Your task to perform on an android device: Clear the cart on ebay.com. Add "jbl flip 4" to the cart on ebay.com Image 0: 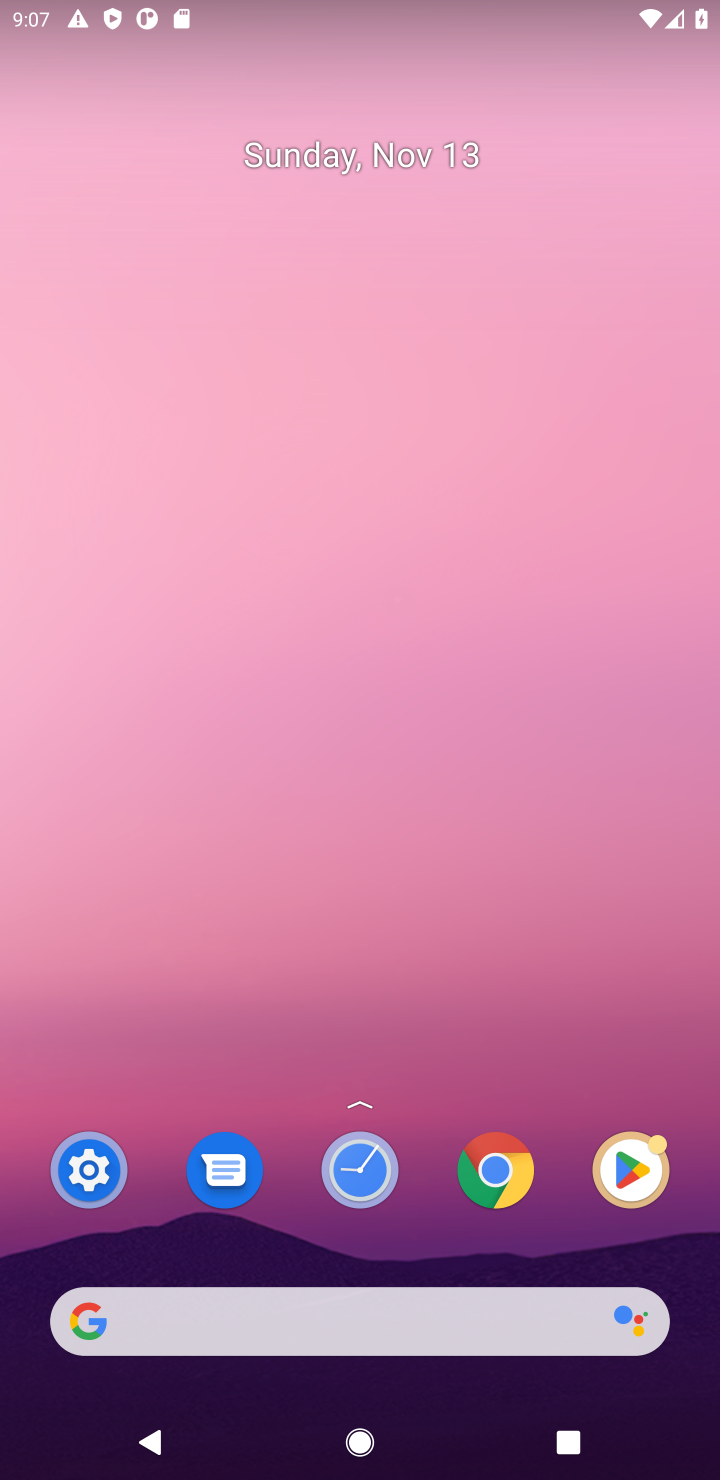
Step 0: click (415, 1330)
Your task to perform on an android device: Clear the cart on ebay.com. Add "jbl flip 4" to the cart on ebay.com Image 1: 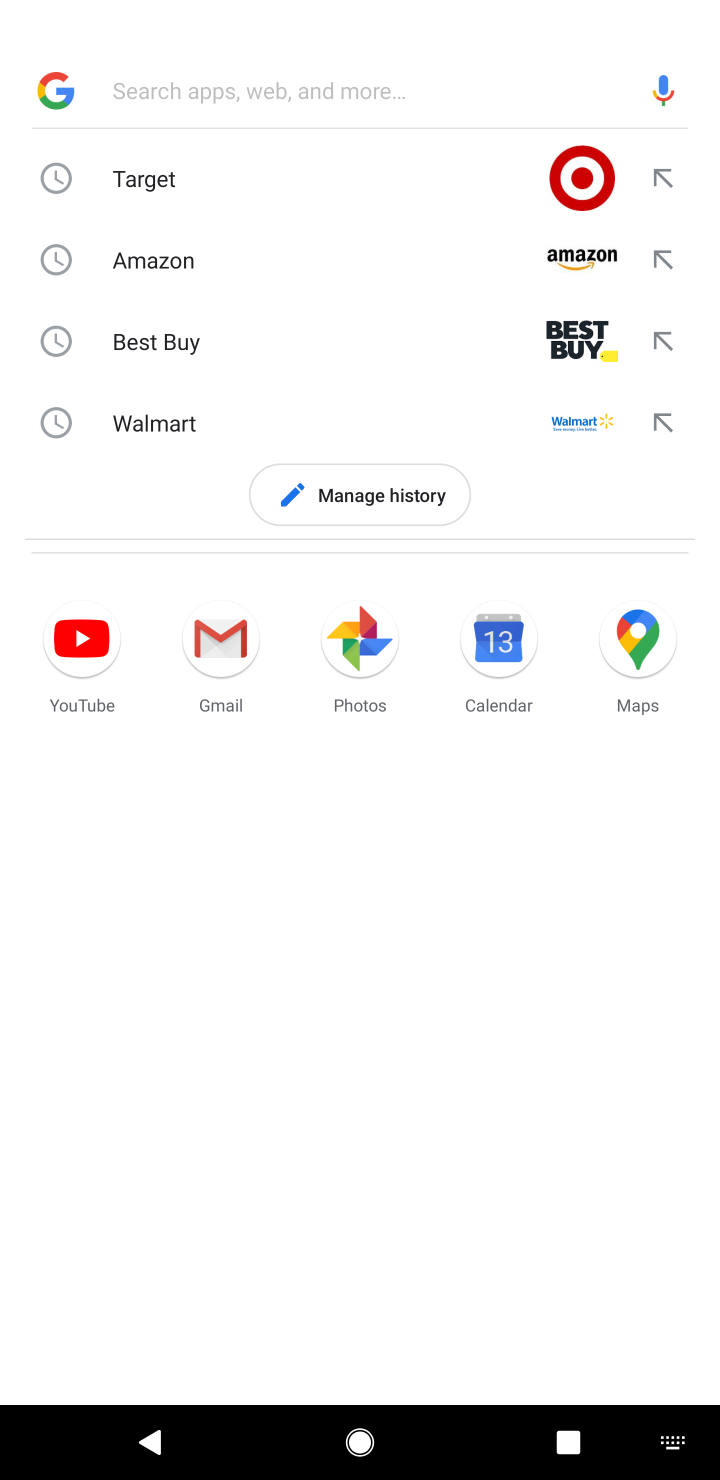
Step 1: type "jbl flip 4"
Your task to perform on an android device: Clear the cart on ebay.com. Add "jbl flip 4" to the cart on ebay.com Image 2: 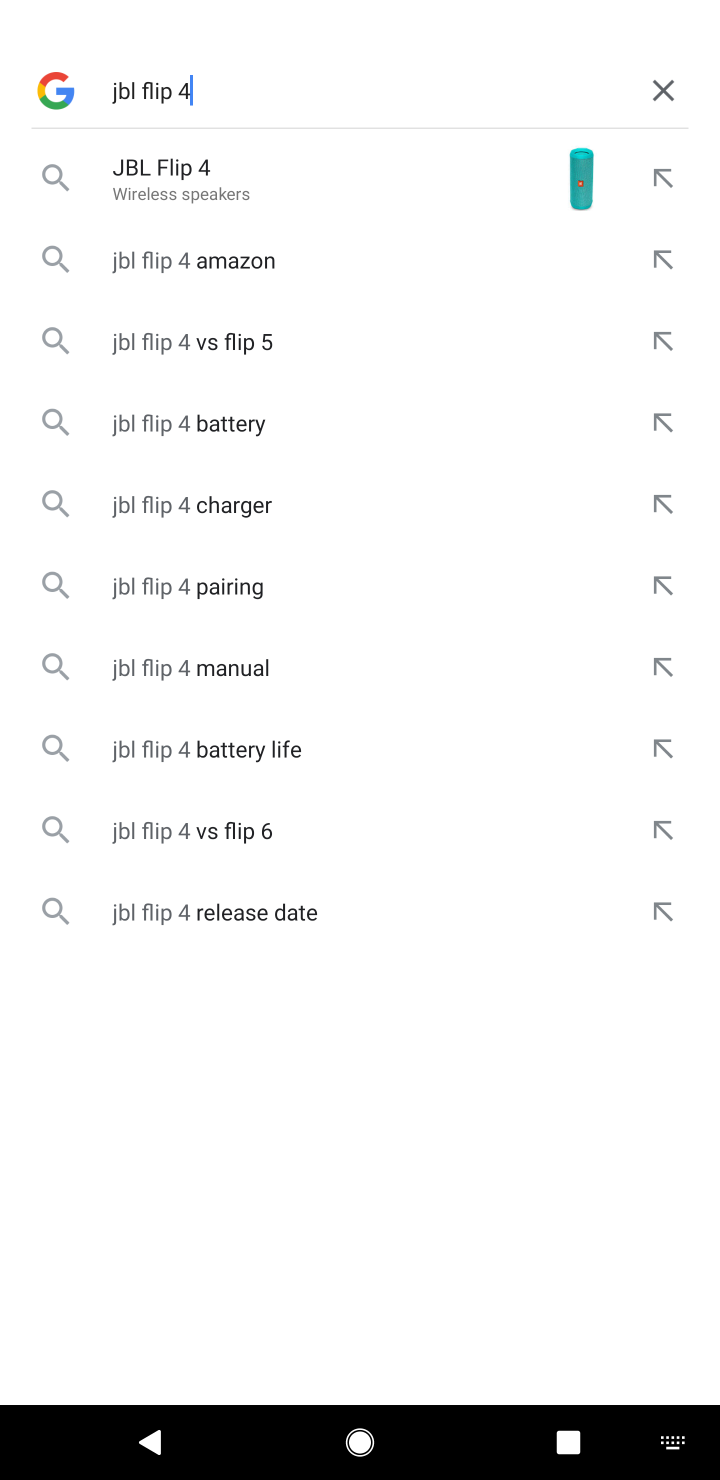
Step 2: click (304, 182)
Your task to perform on an android device: Clear the cart on ebay.com. Add "jbl flip 4" to the cart on ebay.com Image 3: 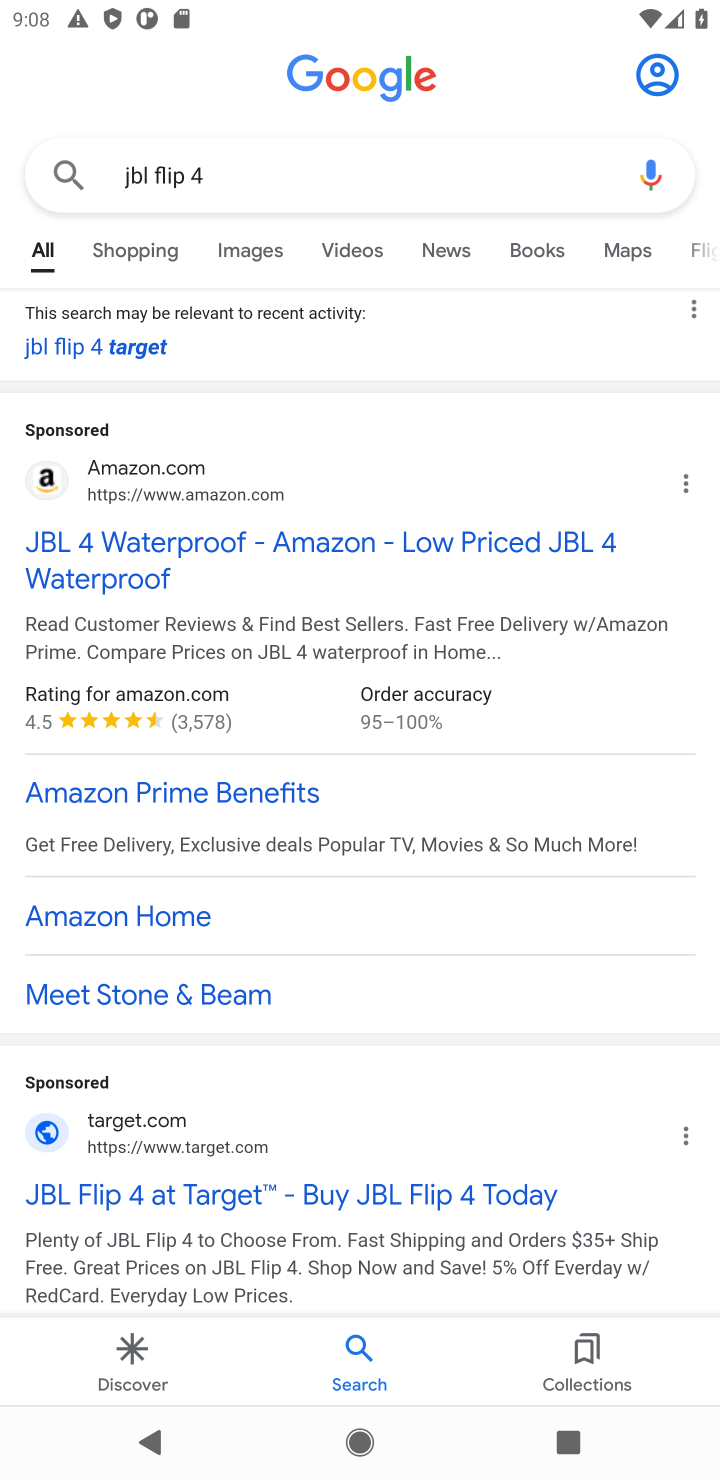
Step 3: click (162, 542)
Your task to perform on an android device: Clear the cart on ebay.com. Add "jbl flip 4" to the cart on ebay.com Image 4: 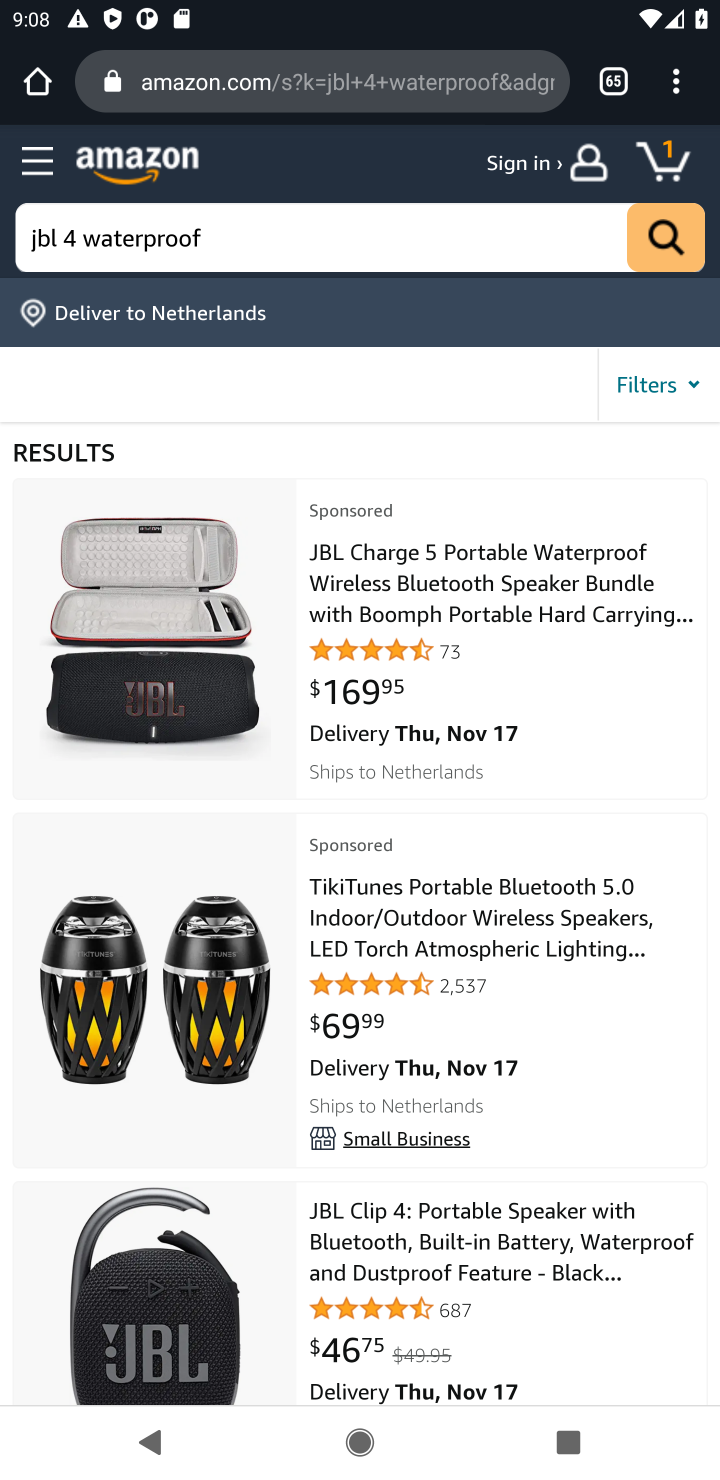
Step 4: task complete